Your task to perform on an android device: turn on the 24-hour format for clock Image 0: 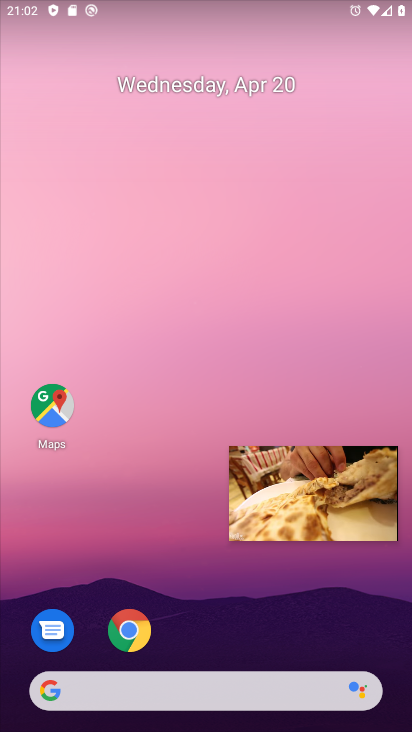
Step 0: drag from (156, 564) to (154, 194)
Your task to perform on an android device: turn on the 24-hour format for clock Image 1: 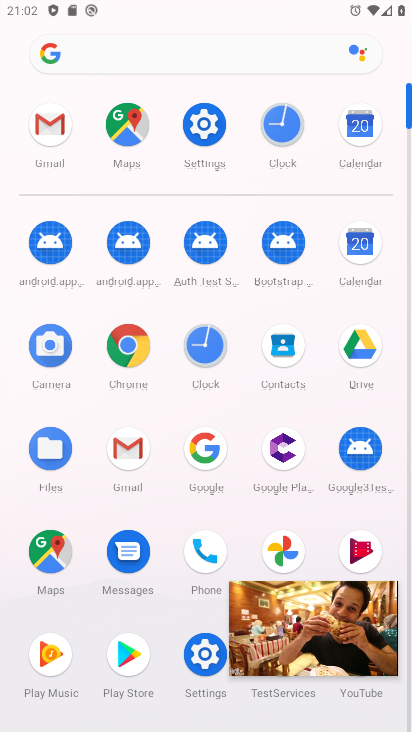
Step 1: click (198, 340)
Your task to perform on an android device: turn on the 24-hour format for clock Image 2: 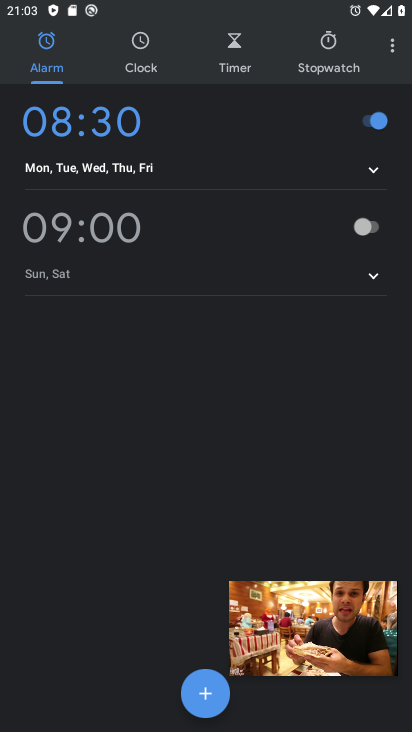
Step 2: click (198, 340)
Your task to perform on an android device: turn on the 24-hour format for clock Image 3: 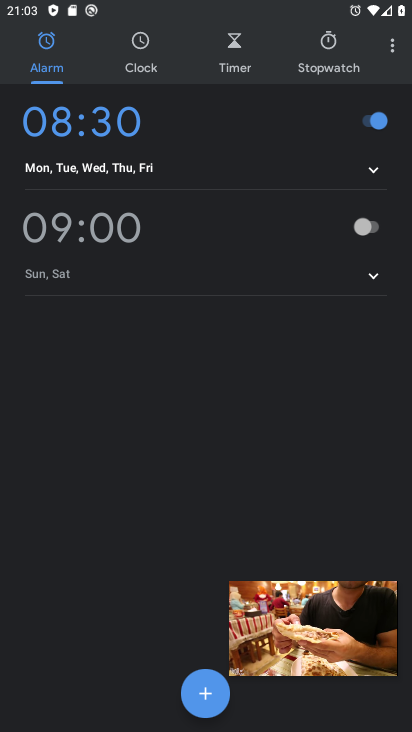
Step 3: click (397, 47)
Your task to perform on an android device: turn on the 24-hour format for clock Image 4: 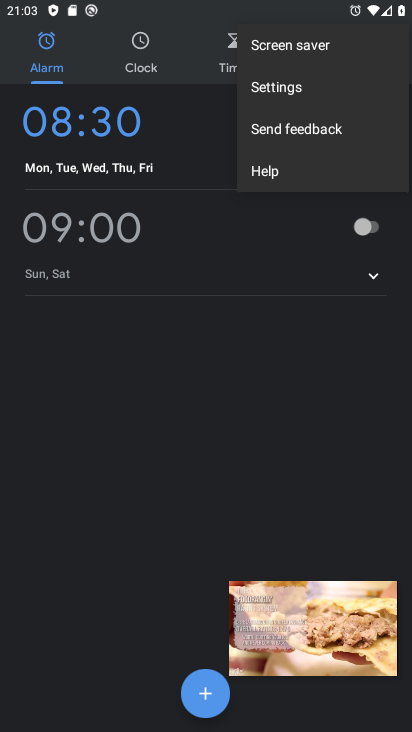
Step 4: click (287, 83)
Your task to perform on an android device: turn on the 24-hour format for clock Image 5: 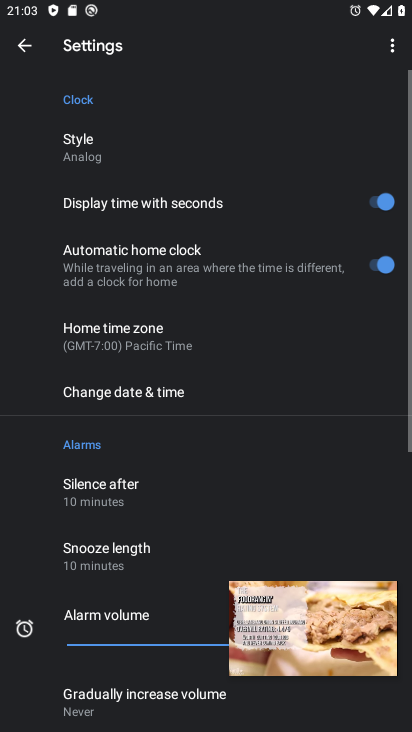
Step 5: click (230, 386)
Your task to perform on an android device: turn on the 24-hour format for clock Image 6: 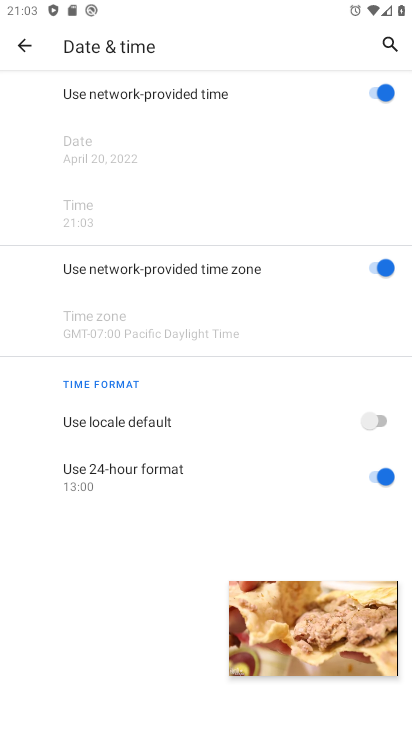
Step 6: task complete